Your task to perform on an android device: change text size in settings app Image 0: 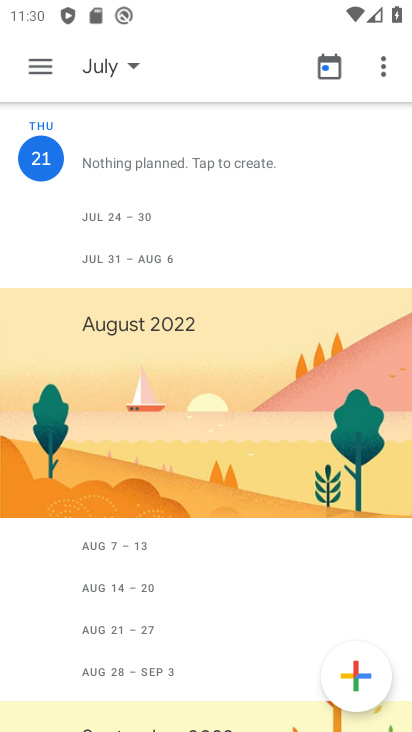
Step 0: press home button
Your task to perform on an android device: change text size in settings app Image 1: 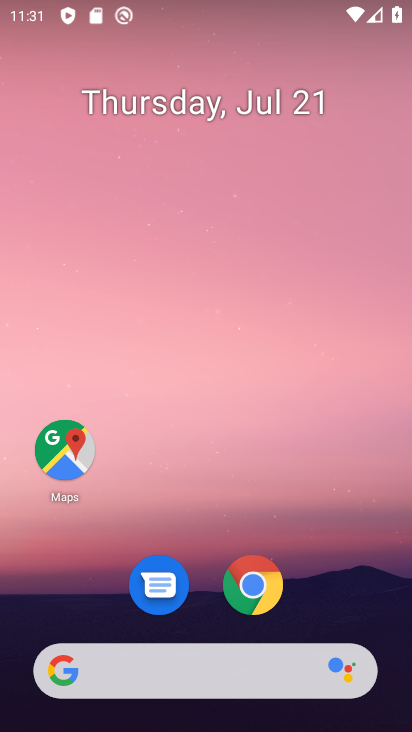
Step 1: drag from (216, 643) to (285, 15)
Your task to perform on an android device: change text size in settings app Image 2: 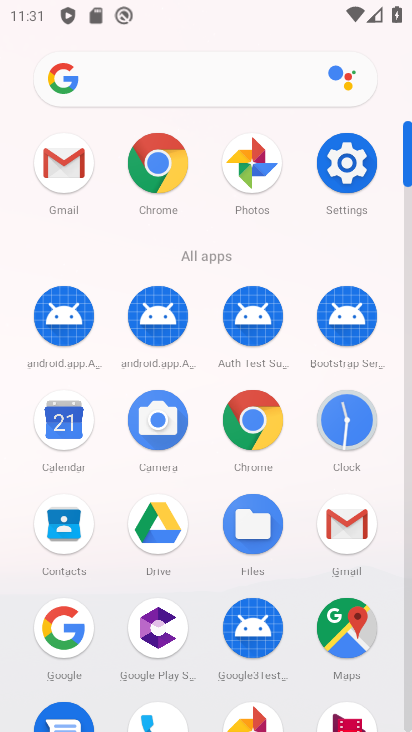
Step 2: click (354, 174)
Your task to perform on an android device: change text size in settings app Image 3: 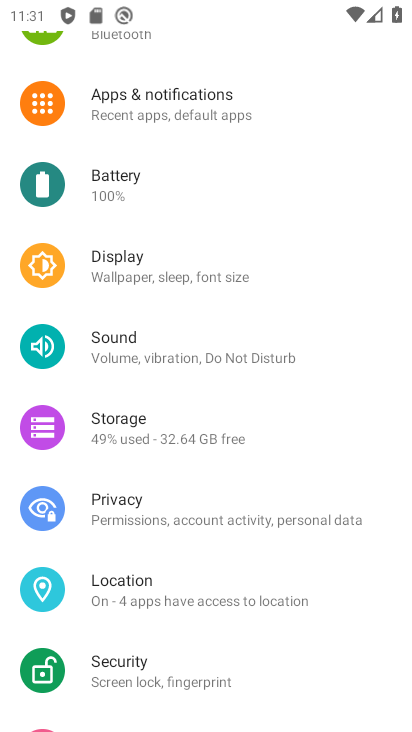
Step 3: drag from (257, 177) to (278, 516)
Your task to perform on an android device: change text size in settings app Image 4: 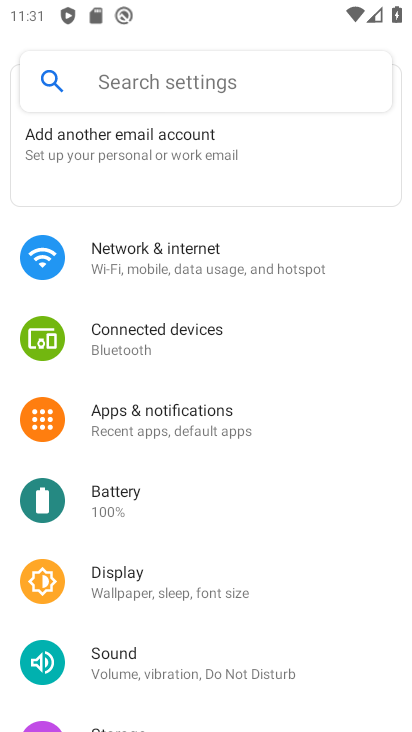
Step 4: click (153, 589)
Your task to perform on an android device: change text size in settings app Image 5: 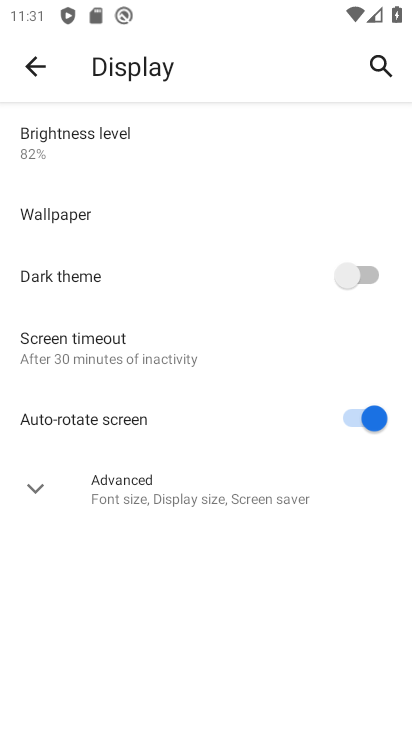
Step 5: click (147, 494)
Your task to perform on an android device: change text size in settings app Image 6: 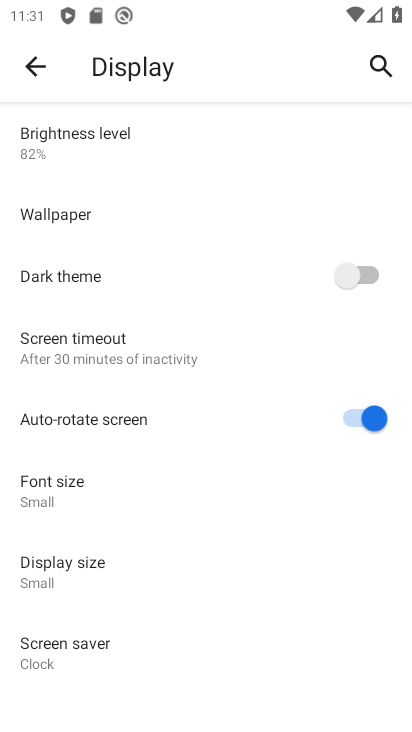
Step 6: click (57, 491)
Your task to perform on an android device: change text size in settings app Image 7: 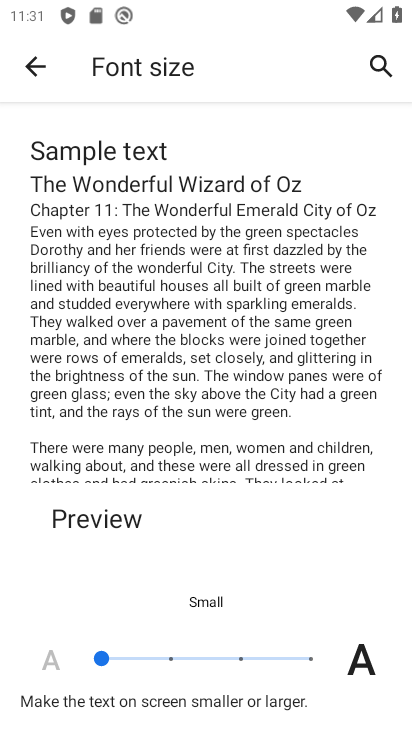
Step 7: click (167, 655)
Your task to perform on an android device: change text size in settings app Image 8: 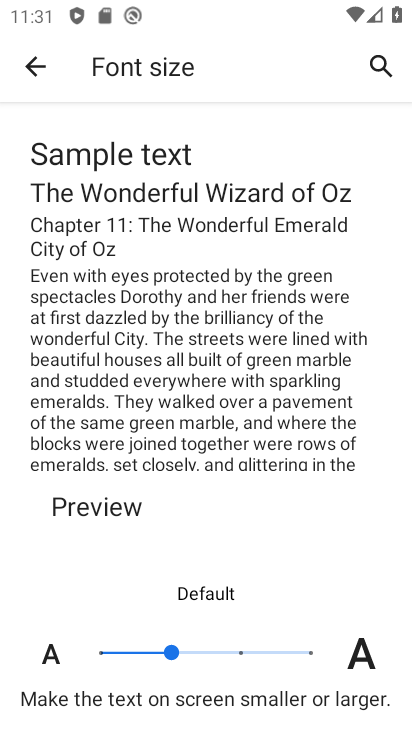
Step 8: task complete